Your task to perform on an android device: delete browsing data in the chrome app Image 0: 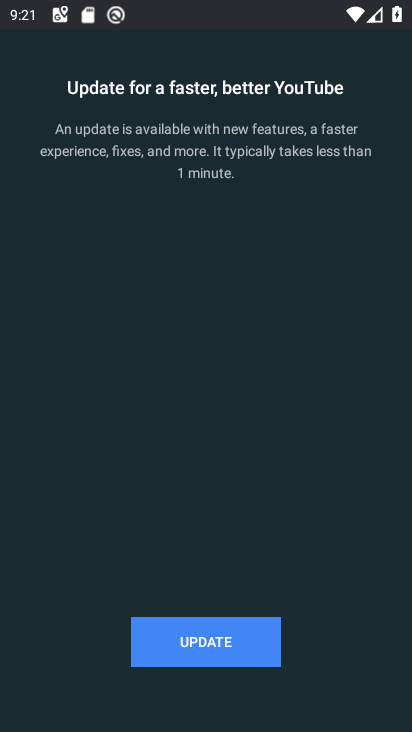
Step 0: press home button
Your task to perform on an android device: delete browsing data in the chrome app Image 1: 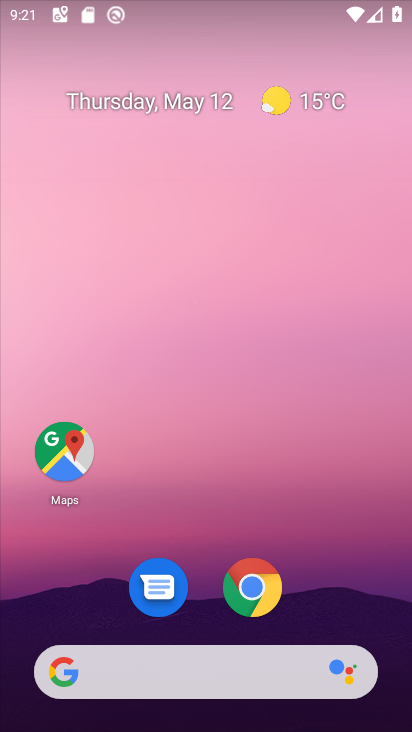
Step 1: drag from (399, 618) to (320, 244)
Your task to perform on an android device: delete browsing data in the chrome app Image 2: 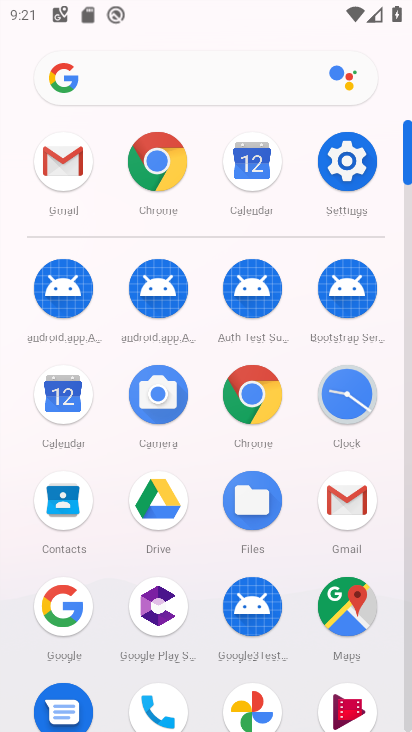
Step 2: click (264, 417)
Your task to perform on an android device: delete browsing data in the chrome app Image 3: 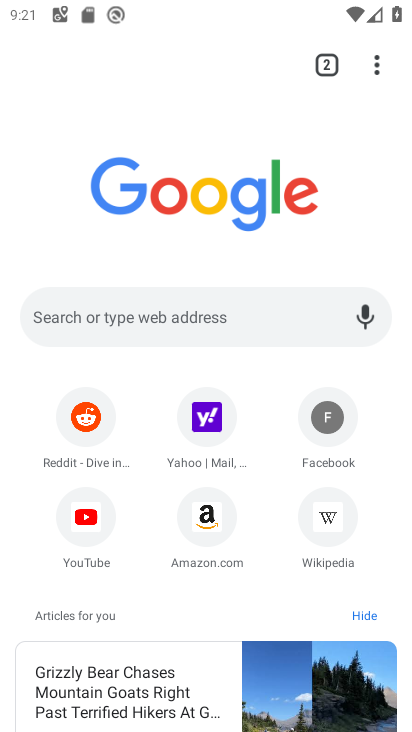
Step 3: click (376, 64)
Your task to perform on an android device: delete browsing data in the chrome app Image 4: 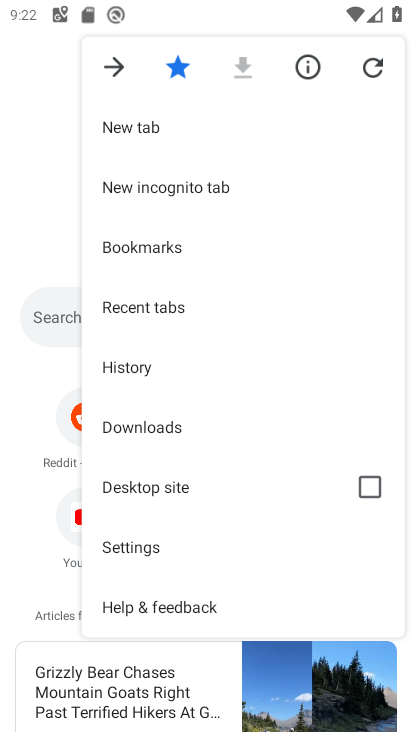
Step 4: click (215, 377)
Your task to perform on an android device: delete browsing data in the chrome app Image 5: 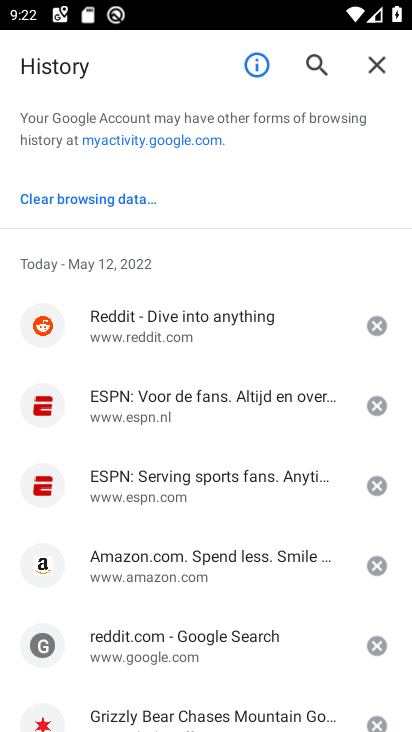
Step 5: click (85, 213)
Your task to perform on an android device: delete browsing data in the chrome app Image 6: 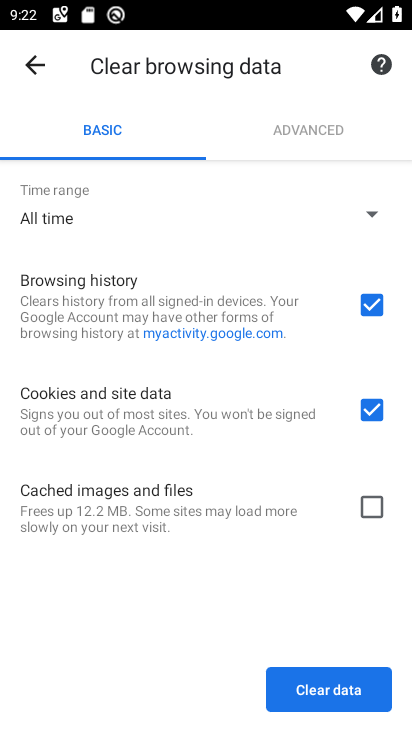
Step 6: click (335, 688)
Your task to perform on an android device: delete browsing data in the chrome app Image 7: 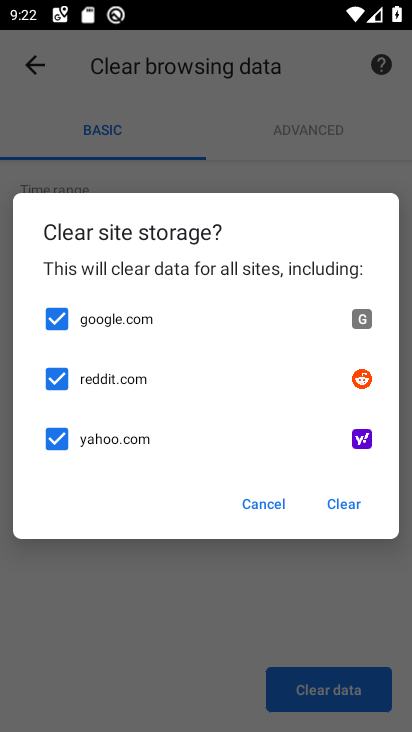
Step 7: click (350, 504)
Your task to perform on an android device: delete browsing data in the chrome app Image 8: 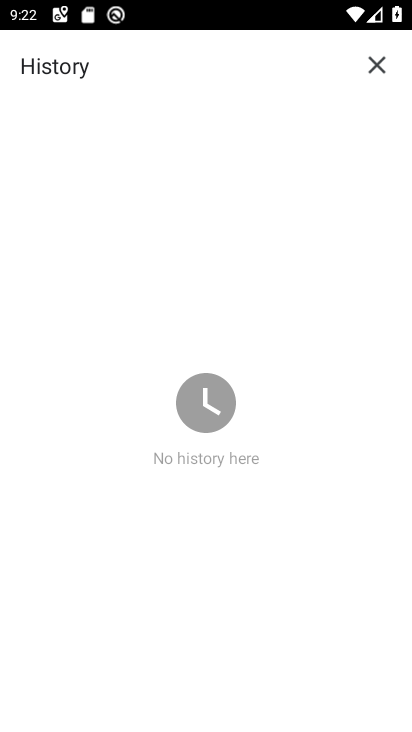
Step 8: task complete